Your task to perform on an android device: allow notifications from all sites in the chrome app Image 0: 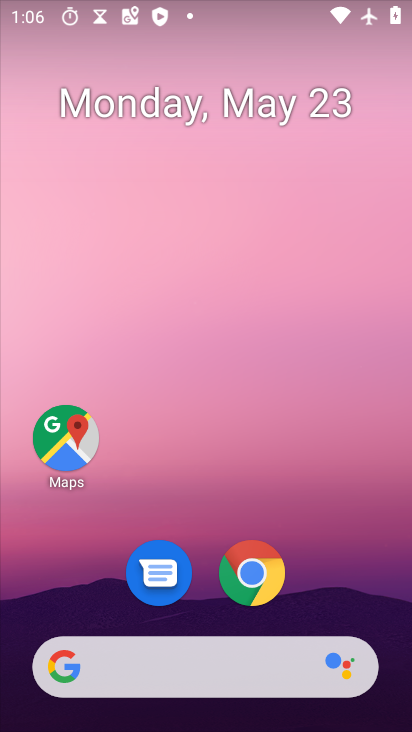
Step 0: press home button
Your task to perform on an android device: allow notifications from all sites in the chrome app Image 1: 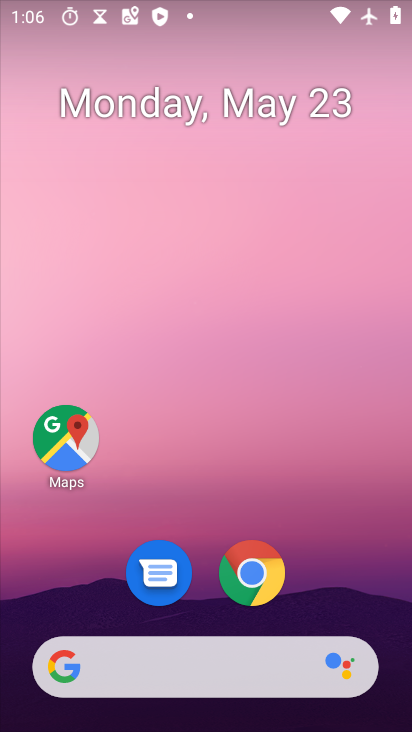
Step 1: click (255, 587)
Your task to perform on an android device: allow notifications from all sites in the chrome app Image 2: 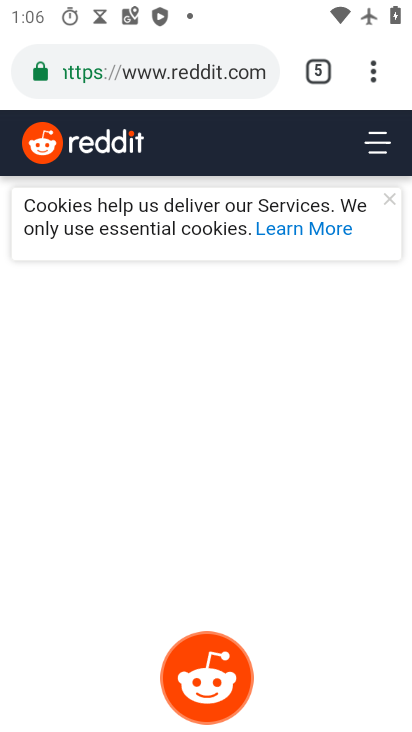
Step 2: drag from (377, 72) to (200, 563)
Your task to perform on an android device: allow notifications from all sites in the chrome app Image 3: 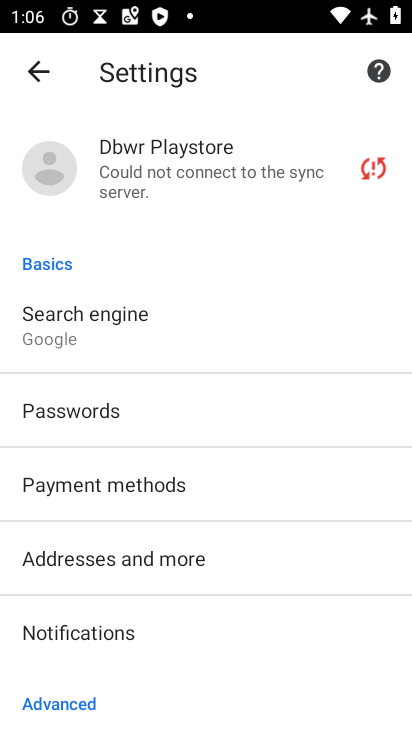
Step 3: drag from (199, 638) to (340, 188)
Your task to perform on an android device: allow notifications from all sites in the chrome app Image 4: 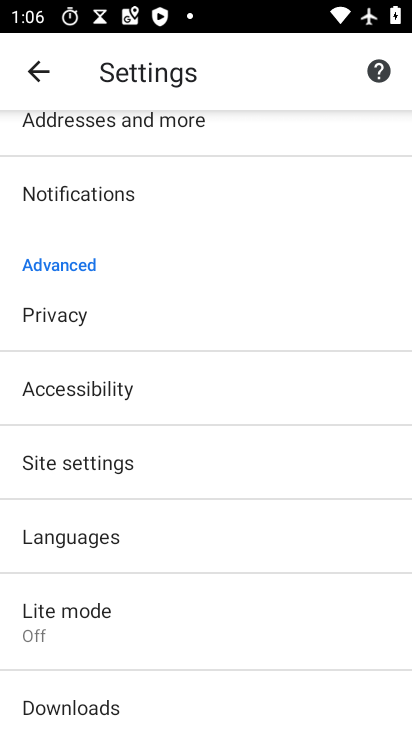
Step 4: click (112, 462)
Your task to perform on an android device: allow notifications from all sites in the chrome app Image 5: 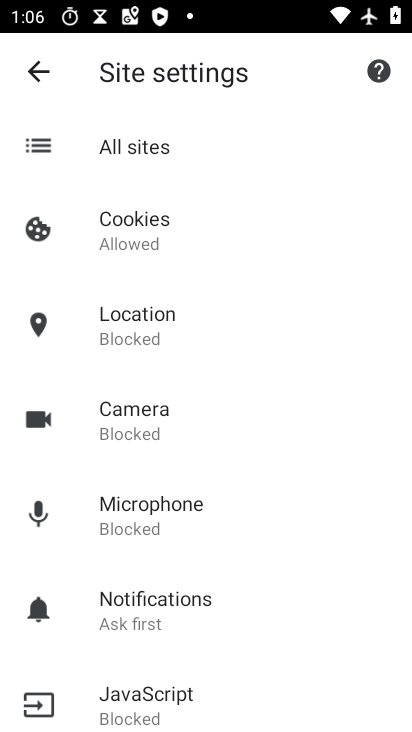
Step 5: click (146, 606)
Your task to perform on an android device: allow notifications from all sites in the chrome app Image 6: 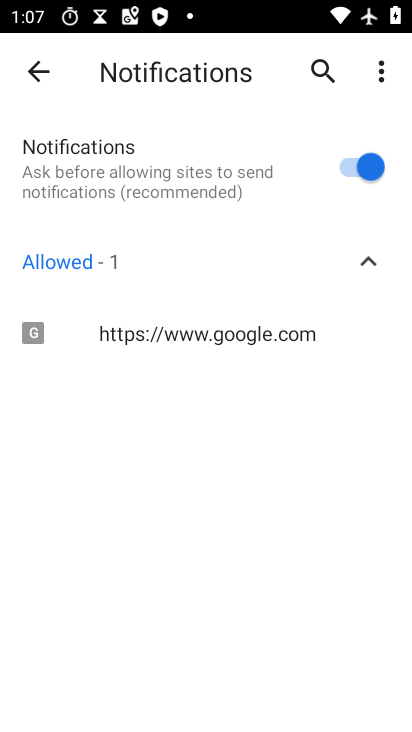
Step 6: task complete